Your task to perform on an android device: turn on the 12-hour format for clock Image 0: 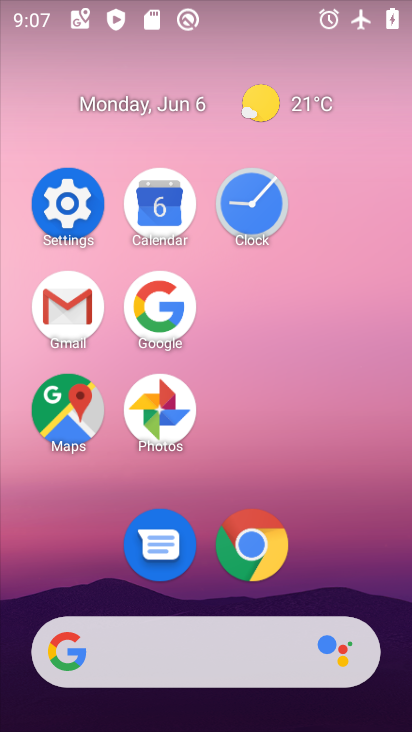
Step 0: click (278, 205)
Your task to perform on an android device: turn on the 12-hour format for clock Image 1: 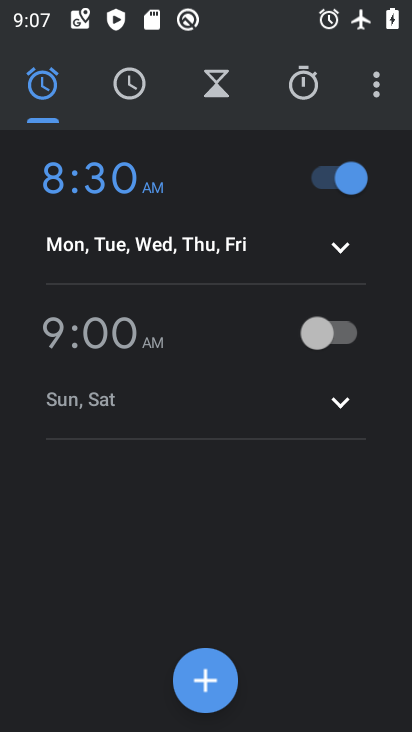
Step 1: click (370, 88)
Your task to perform on an android device: turn on the 12-hour format for clock Image 2: 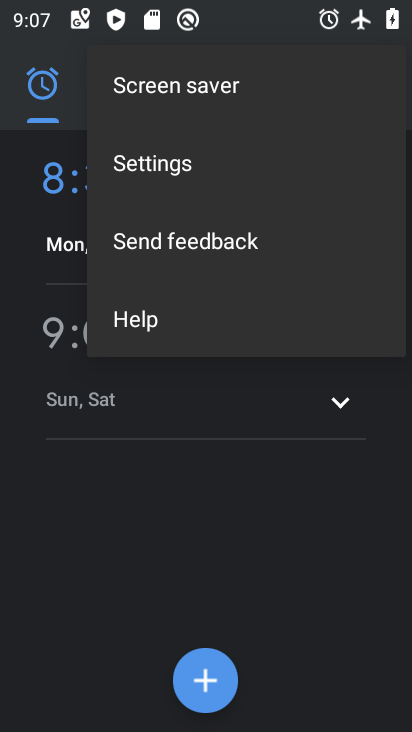
Step 2: click (221, 173)
Your task to perform on an android device: turn on the 12-hour format for clock Image 3: 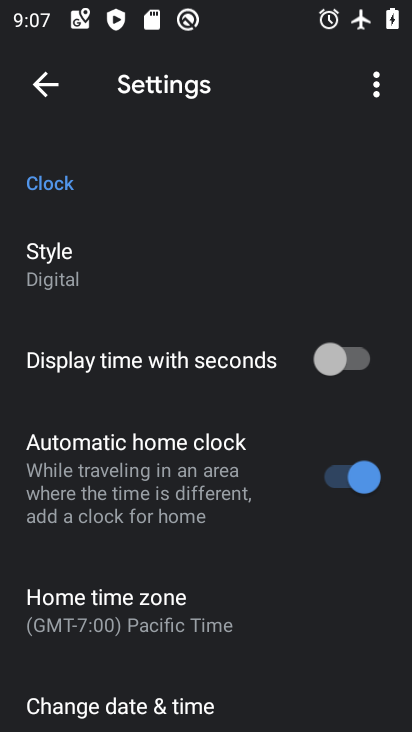
Step 3: drag from (204, 606) to (169, 253)
Your task to perform on an android device: turn on the 12-hour format for clock Image 4: 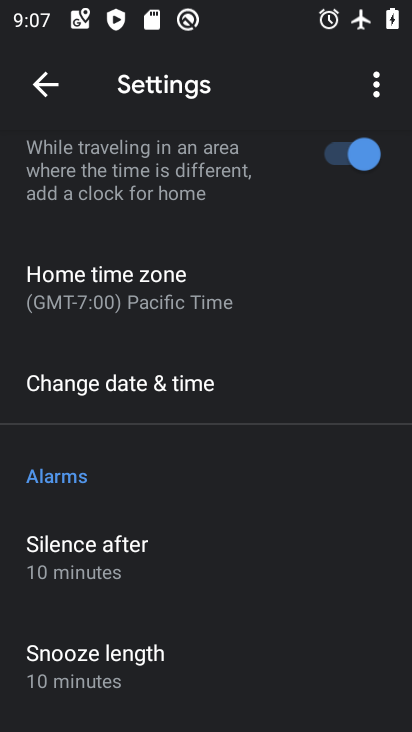
Step 4: click (141, 409)
Your task to perform on an android device: turn on the 12-hour format for clock Image 5: 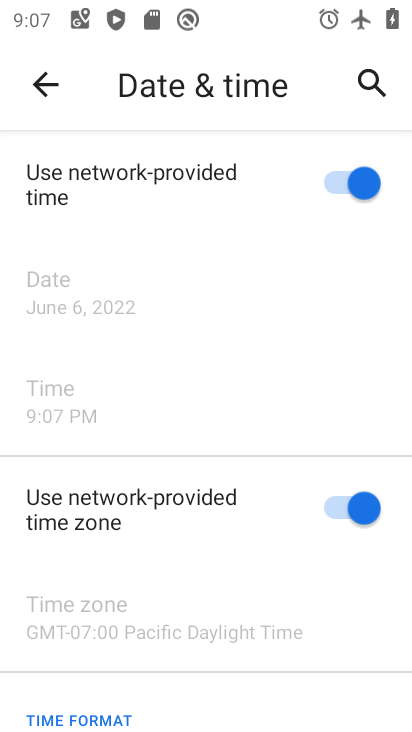
Step 5: task complete